Your task to perform on an android device: toggle improve location accuracy Image 0: 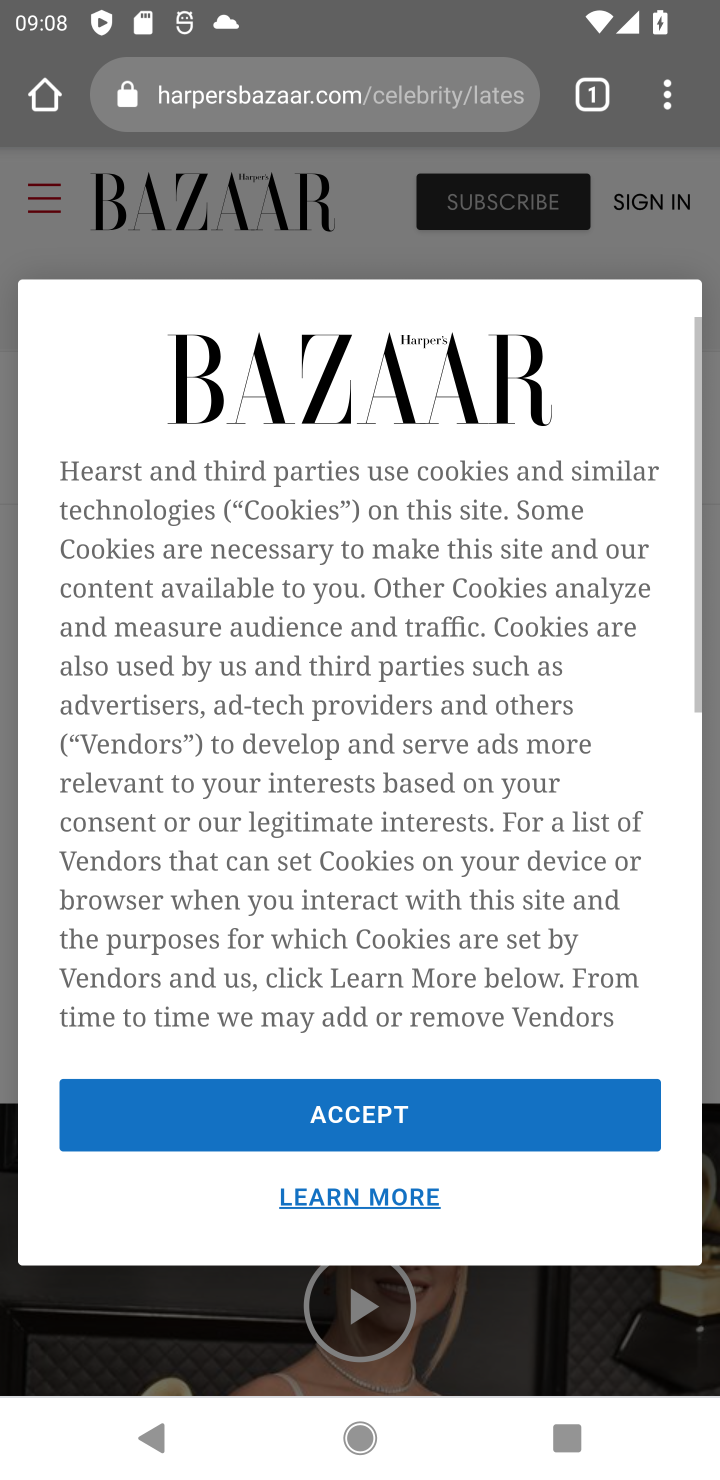
Step 0: press home button
Your task to perform on an android device: toggle improve location accuracy Image 1: 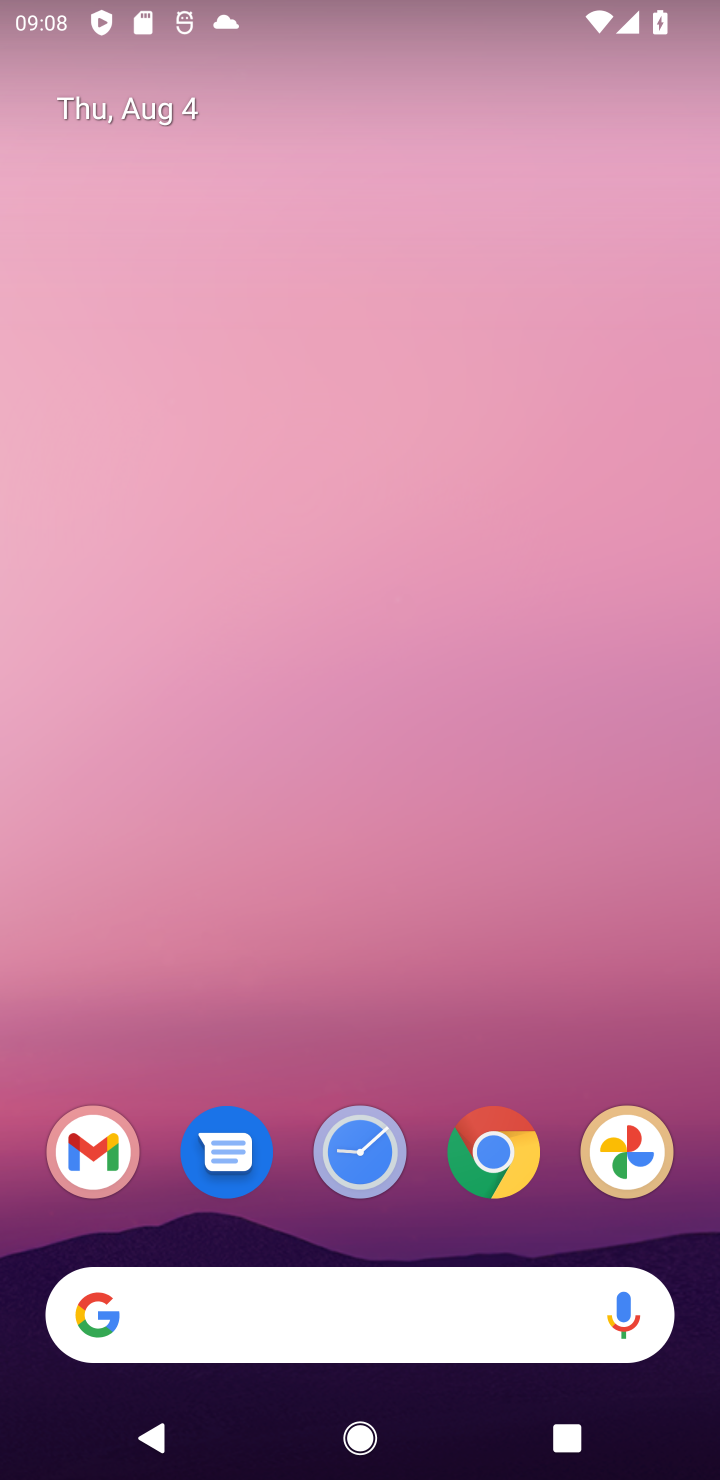
Step 1: drag from (226, 563) to (396, 232)
Your task to perform on an android device: toggle improve location accuracy Image 2: 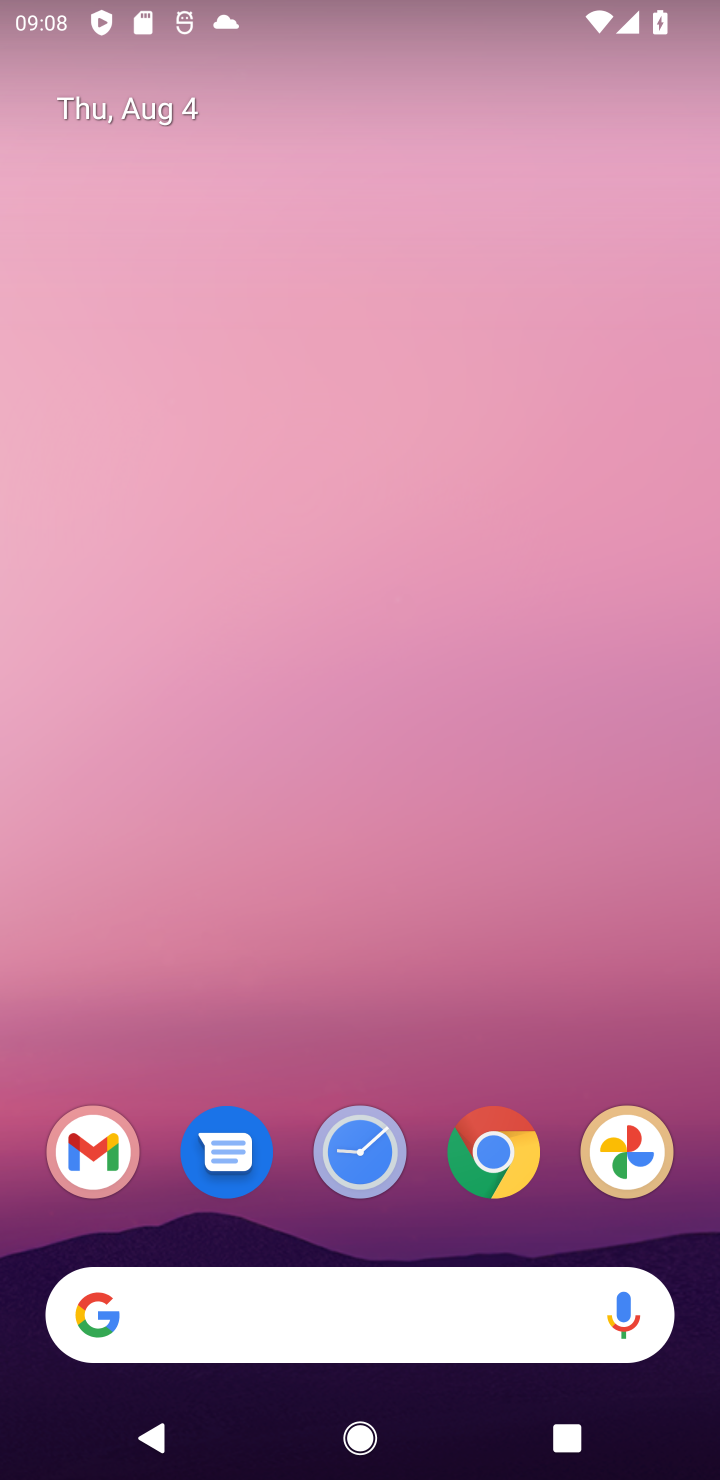
Step 2: drag from (420, 490) to (569, 173)
Your task to perform on an android device: toggle improve location accuracy Image 3: 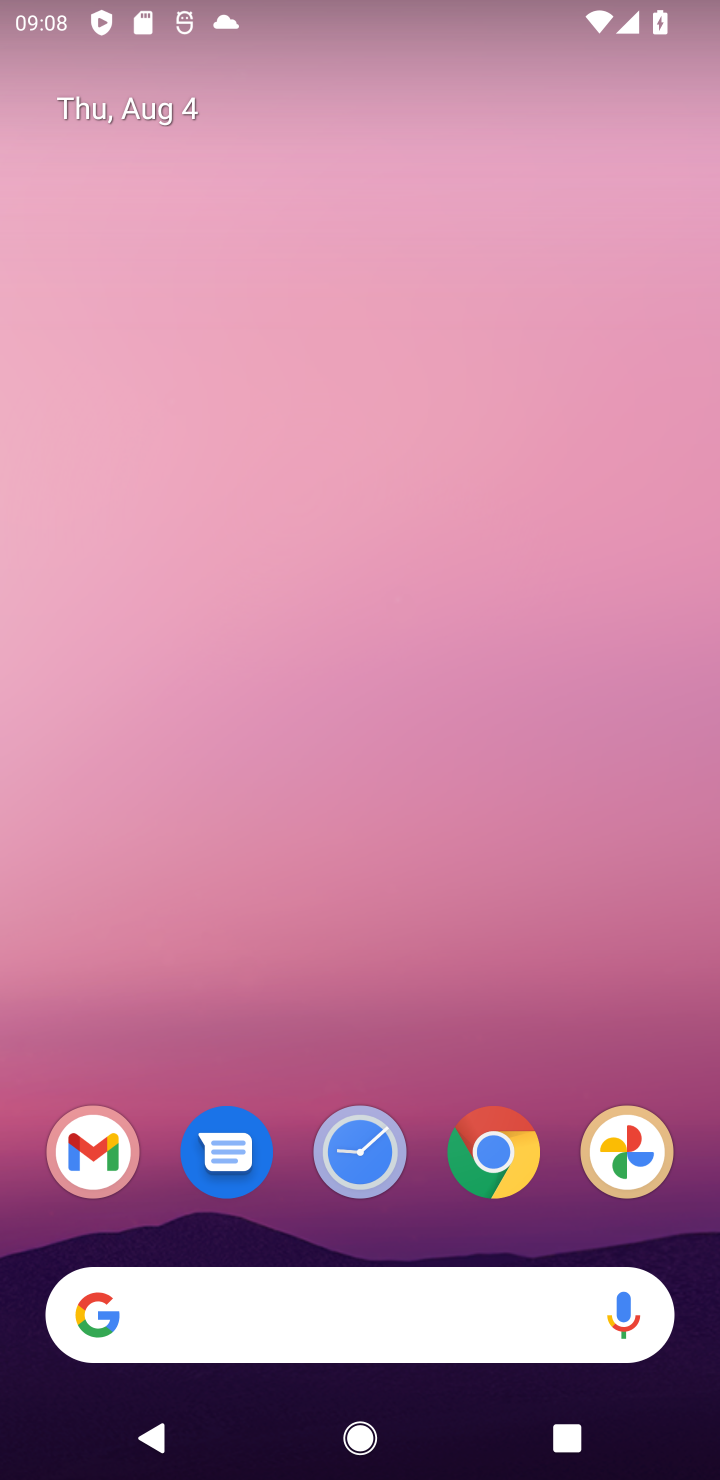
Step 3: drag from (30, 1358) to (601, 940)
Your task to perform on an android device: toggle improve location accuracy Image 4: 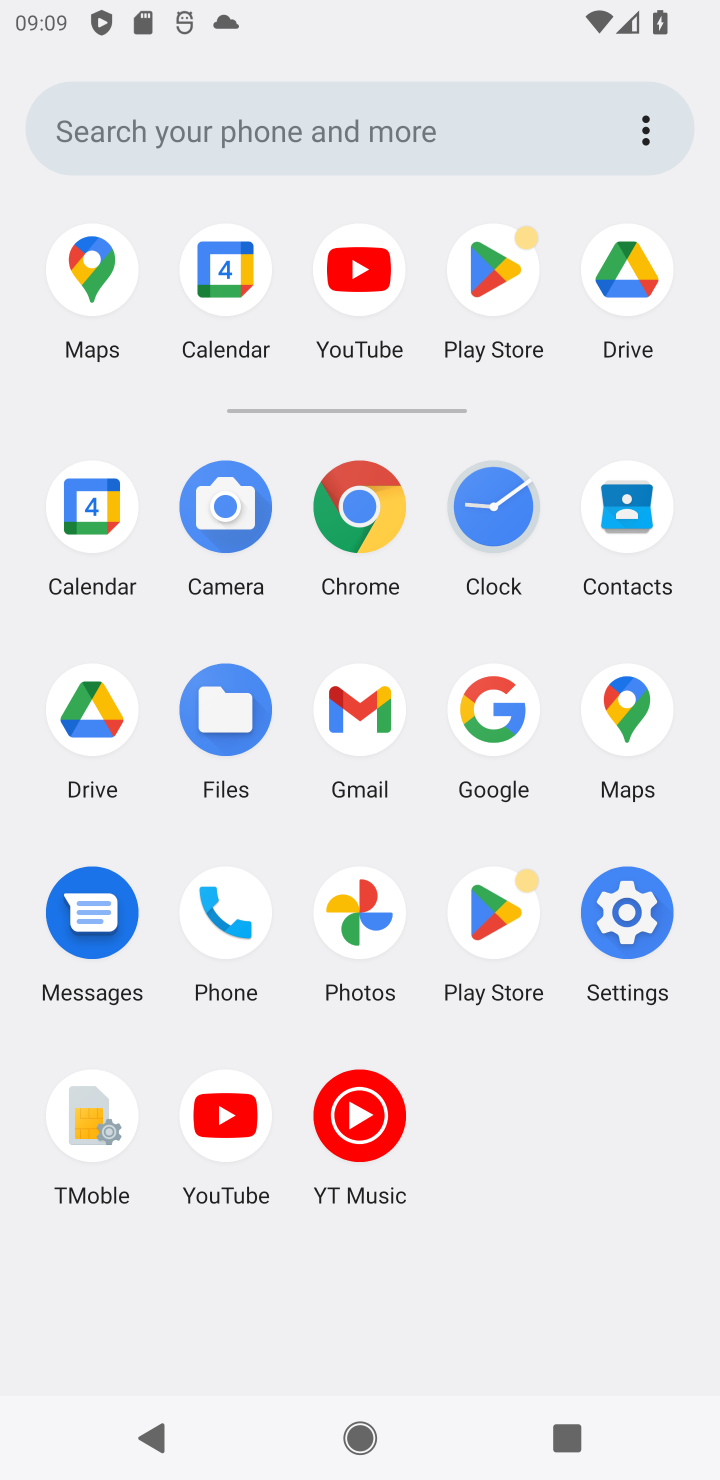
Step 4: click (632, 910)
Your task to perform on an android device: toggle improve location accuracy Image 5: 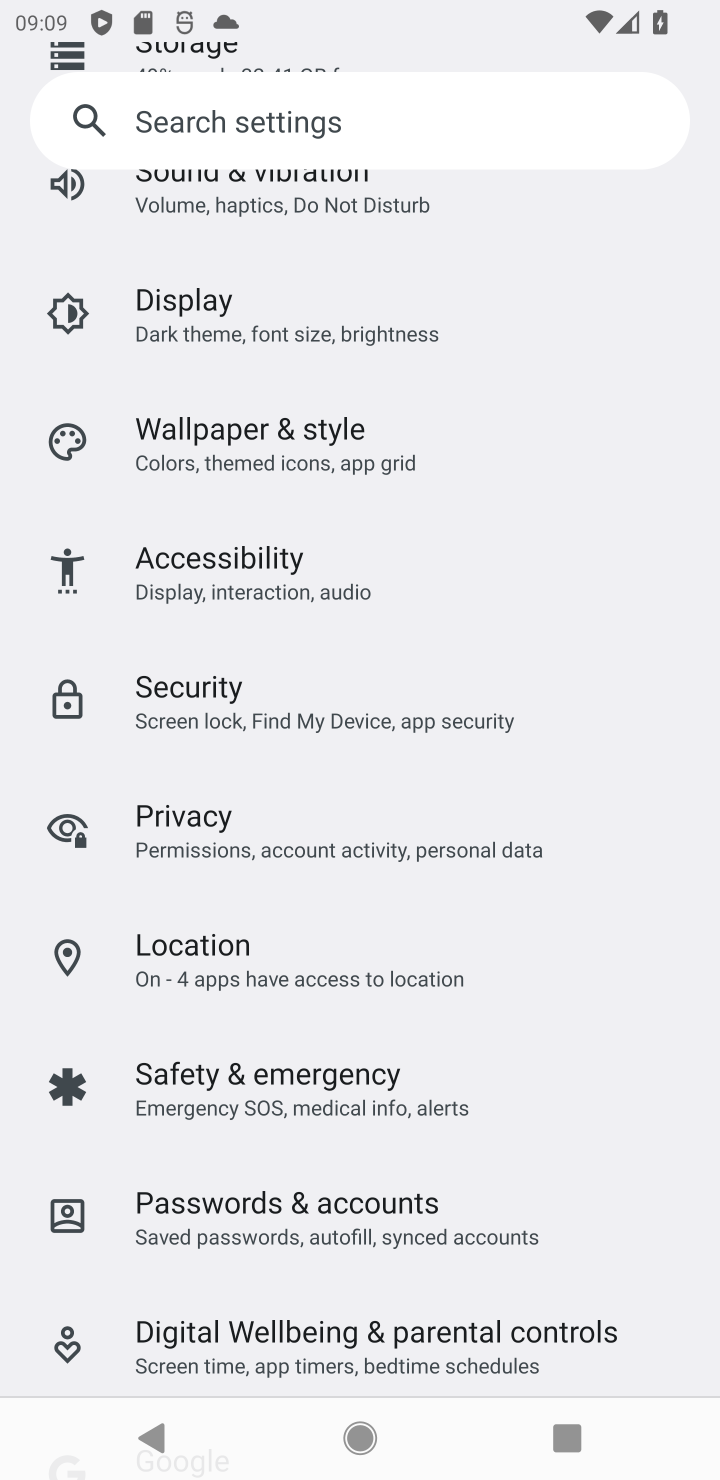
Step 5: drag from (336, 201) to (373, 1182)
Your task to perform on an android device: toggle improve location accuracy Image 6: 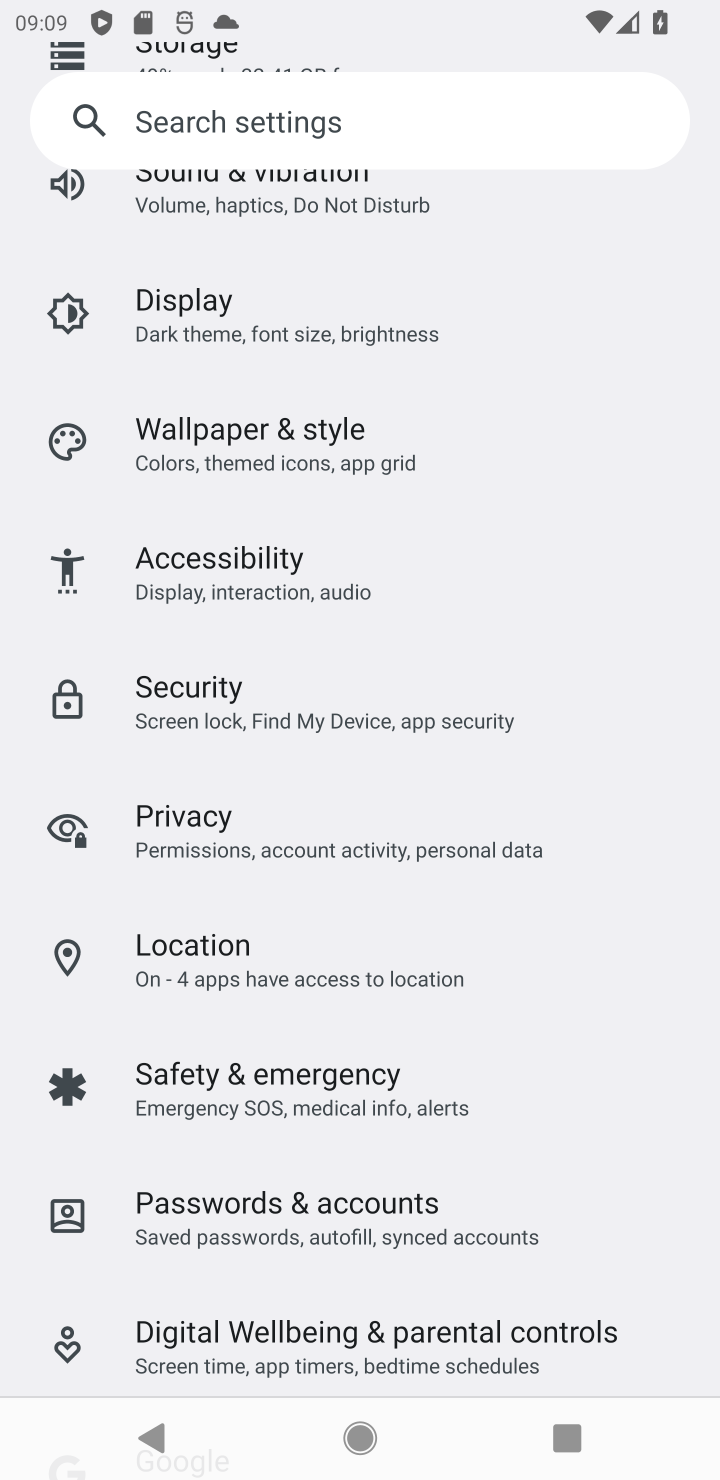
Step 6: click (338, 938)
Your task to perform on an android device: toggle improve location accuracy Image 7: 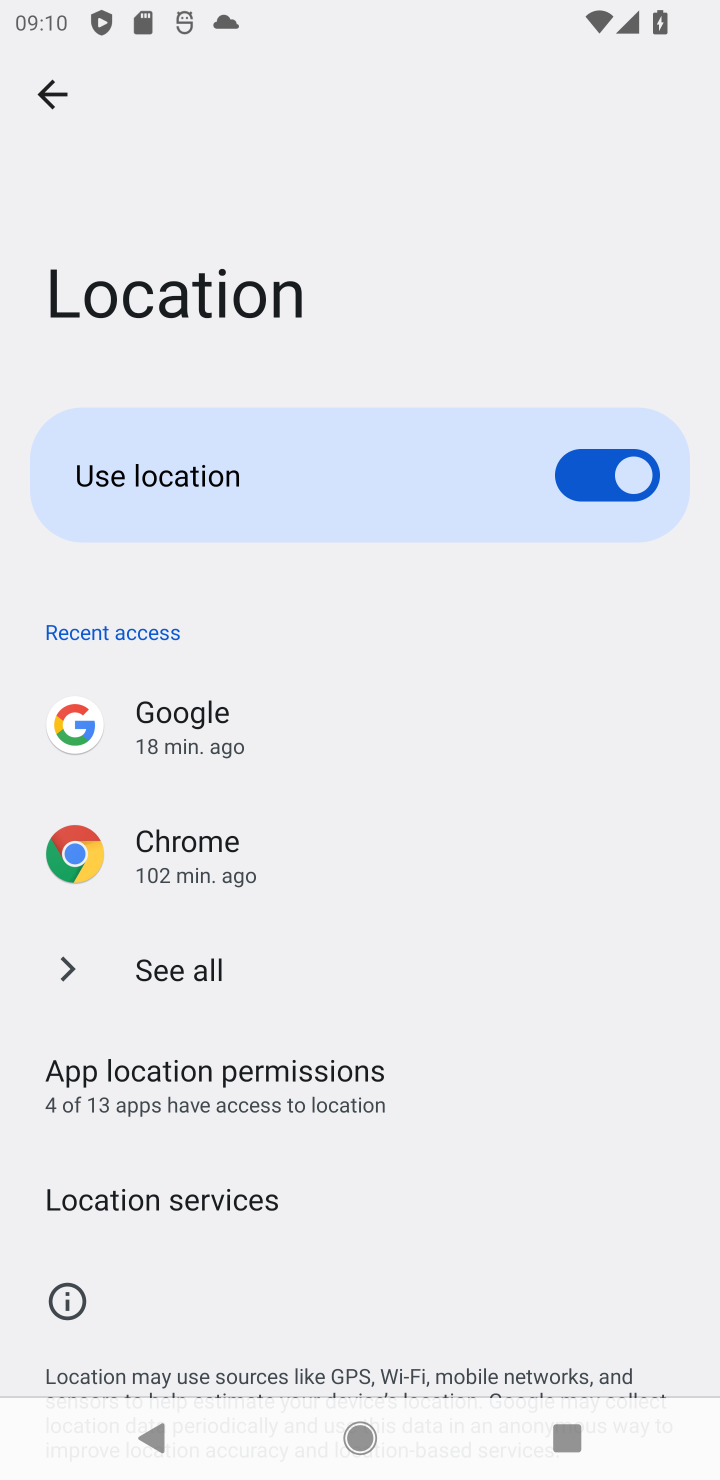
Step 7: task complete